Your task to perform on an android device: turn off airplane mode Image 0: 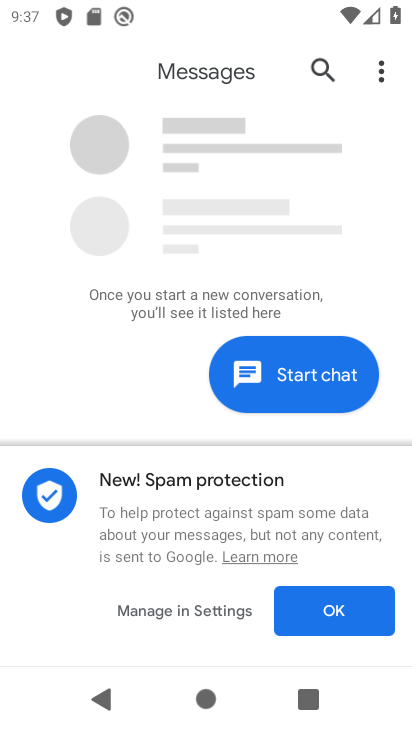
Step 0: press home button
Your task to perform on an android device: turn off airplane mode Image 1: 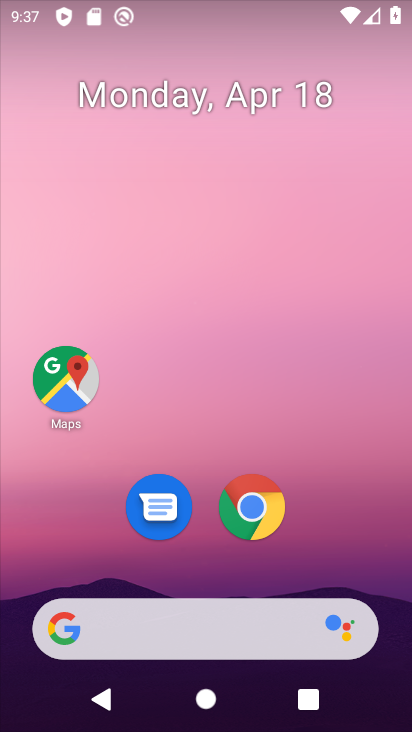
Step 1: drag from (210, 568) to (182, 27)
Your task to perform on an android device: turn off airplane mode Image 2: 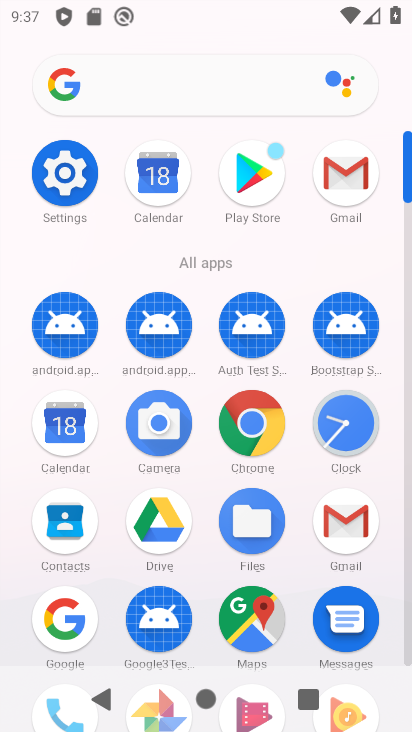
Step 2: click (76, 163)
Your task to perform on an android device: turn off airplane mode Image 3: 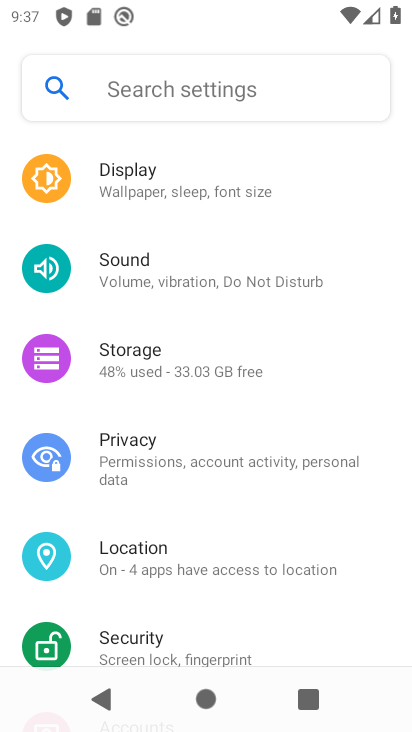
Step 3: drag from (152, 166) to (144, 580)
Your task to perform on an android device: turn off airplane mode Image 4: 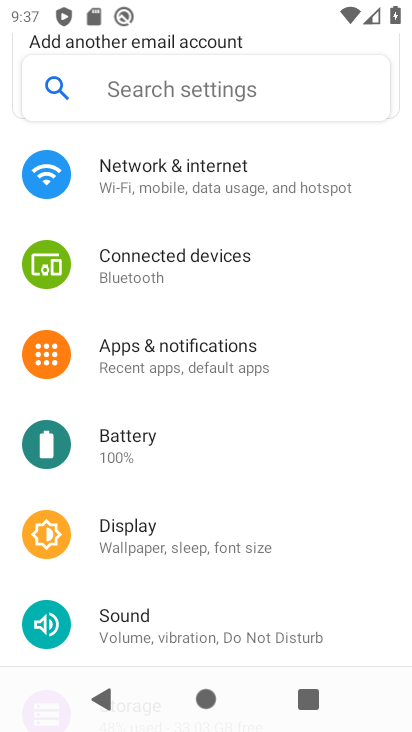
Step 4: click (168, 181)
Your task to perform on an android device: turn off airplane mode Image 5: 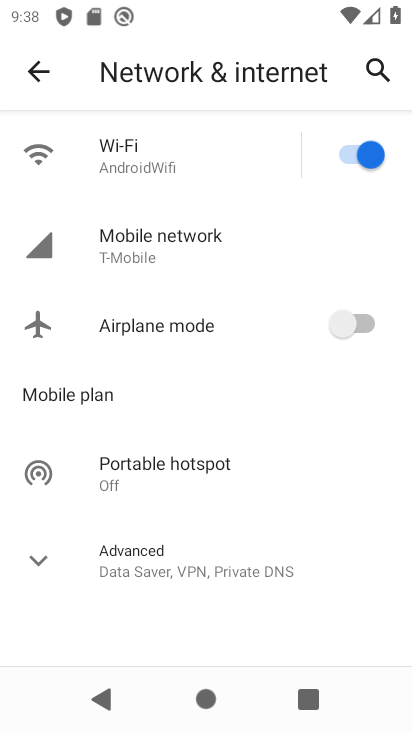
Step 5: task complete